Your task to perform on an android device: turn off wifi Image 0: 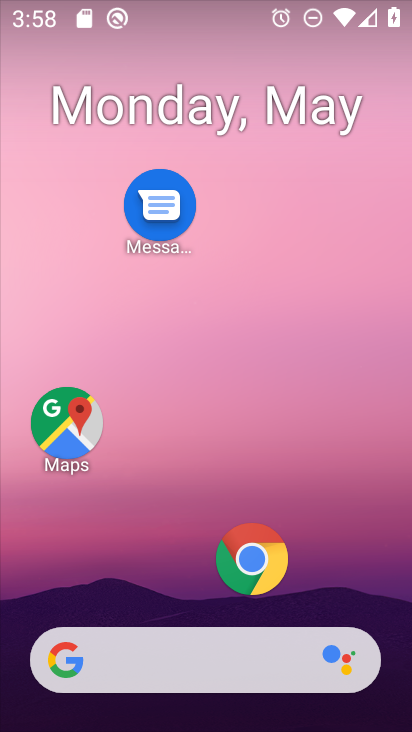
Step 0: drag from (208, 618) to (283, 269)
Your task to perform on an android device: turn off wifi Image 1: 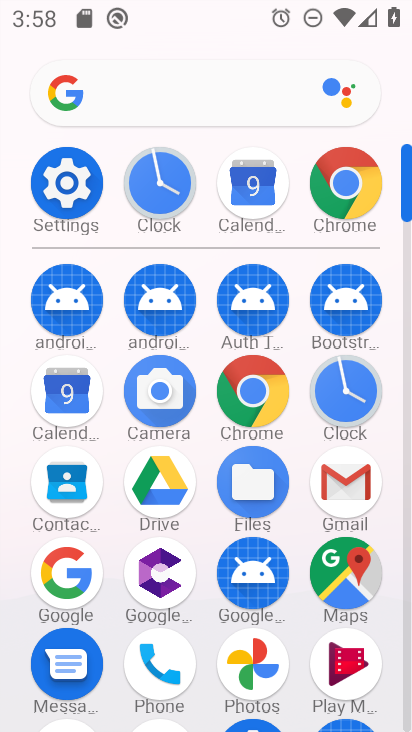
Step 1: drag from (196, 659) to (190, 247)
Your task to perform on an android device: turn off wifi Image 2: 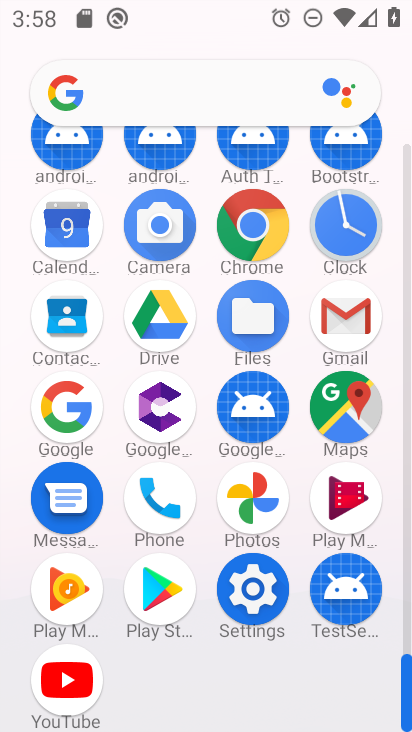
Step 2: click (252, 592)
Your task to perform on an android device: turn off wifi Image 3: 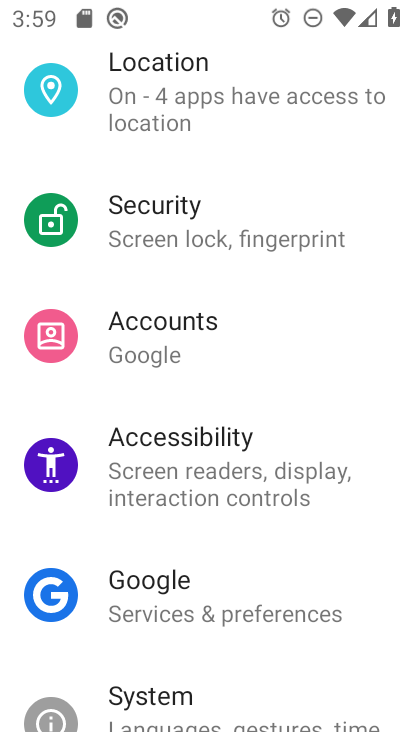
Step 3: drag from (171, 670) to (253, 374)
Your task to perform on an android device: turn off wifi Image 4: 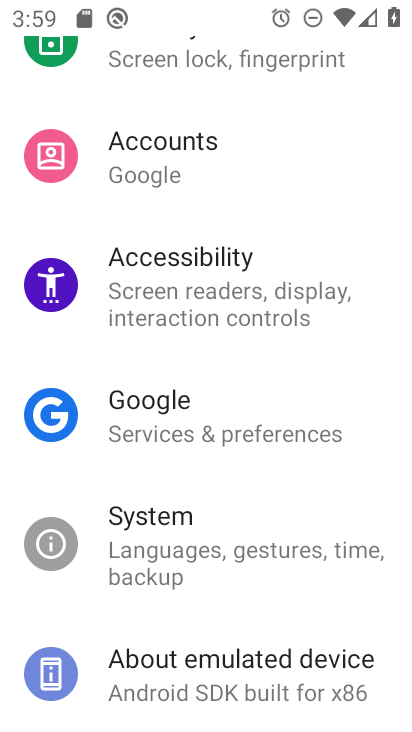
Step 4: drag from (239, 304) to (267, 720)
Your task to perform on an android device: turn off wifi Image 5: 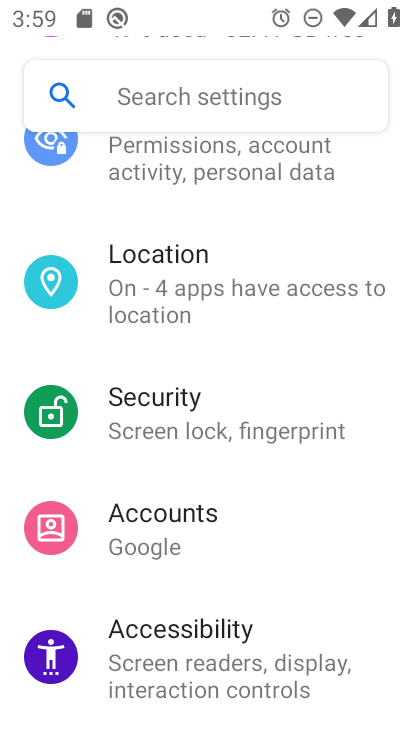
Step 5: drag from (238, 277) to (318, 710)
Your task to perform on an android device: turn off wifi Image 6: 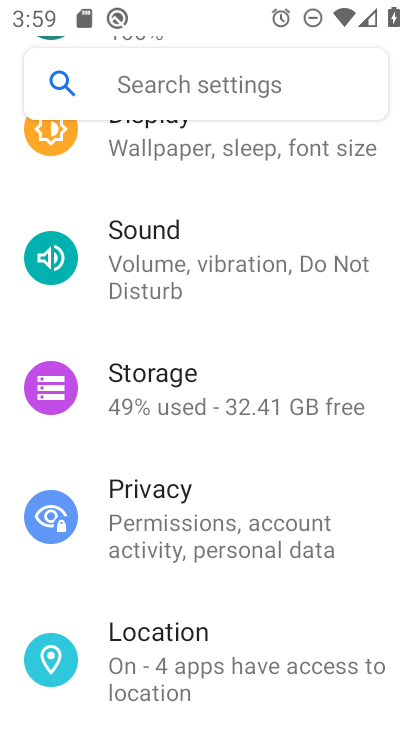
Step 6: drag from (223, 173) to (271, 727)
Your task to perform on an android device: turn off wifi Image 7: 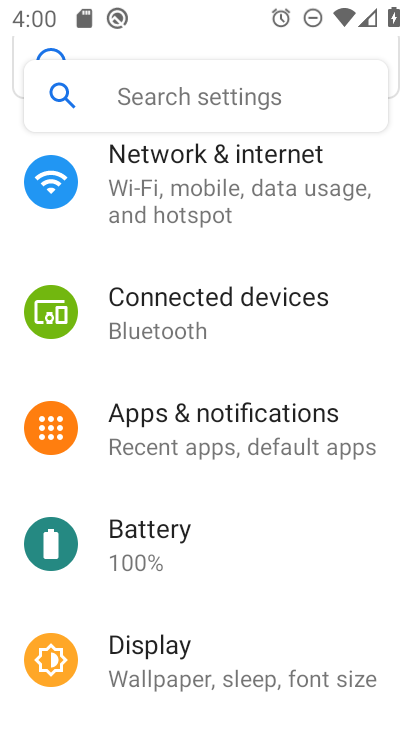
Step 7: drag from (237, 202) to (288, 623)
Your task to perform on an android device: turn off wifi Image 8: 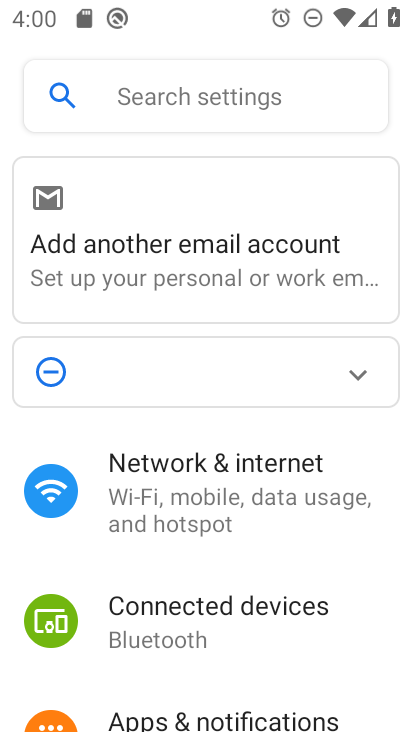
Step 8: click (231, 484)
Your task to perform on an android device: turn off wifi Image 9: 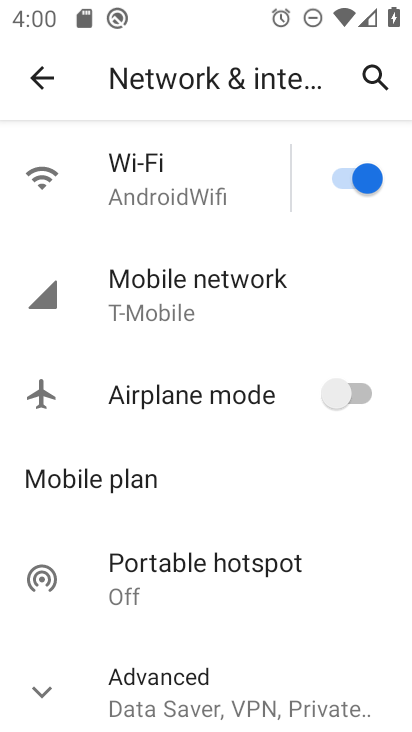
Step 9: click (212, 208)
Your task to perform on an android device: turn off wifi Image 10: 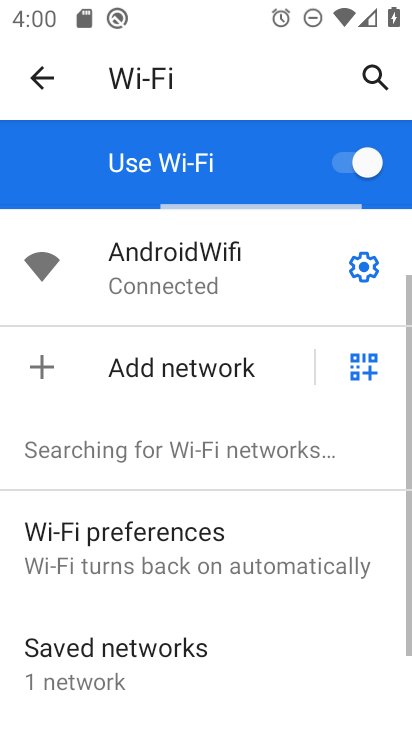
Step 10: drag from (298, 594) to (351, 355)
Your task to perform on an android device: turn off wifi Image 11: 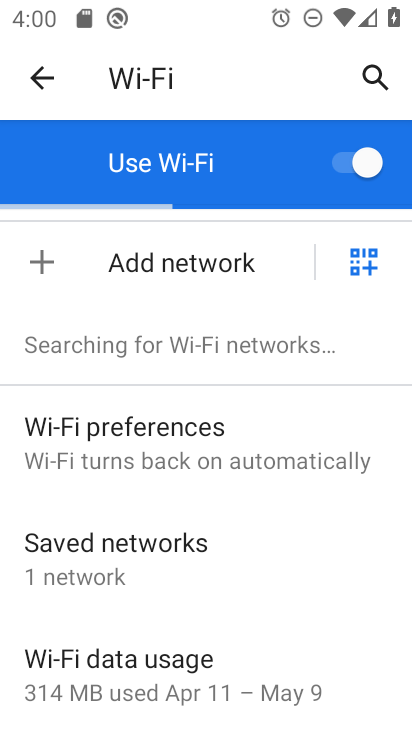
Step 11: drag from (279, 410) to (343, 727)
Your task to perform on an android device: turn off wifi Image 12: 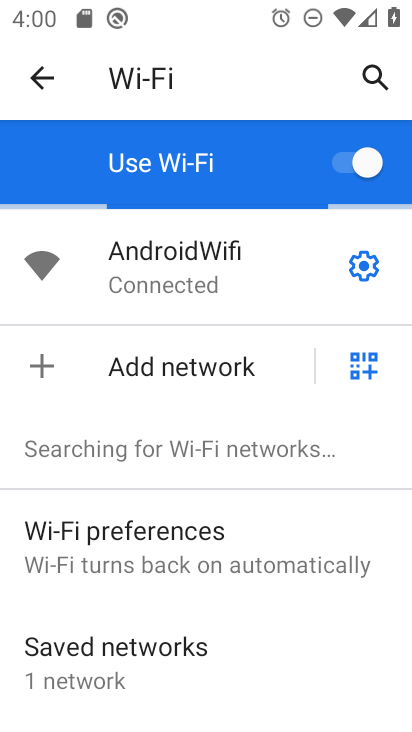
Step 12: click (385, 151)
Your task to perform on an android device: turn off wifi Image 13: 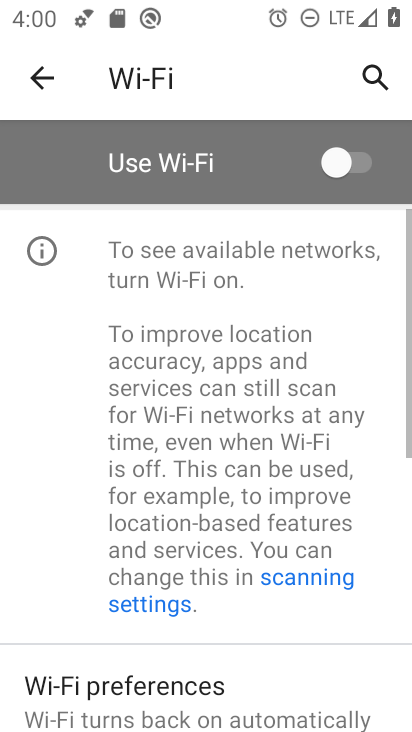
Step 13: task complete